Your task to perform on an android device: What's on my calendar tomorrow? Image 0: 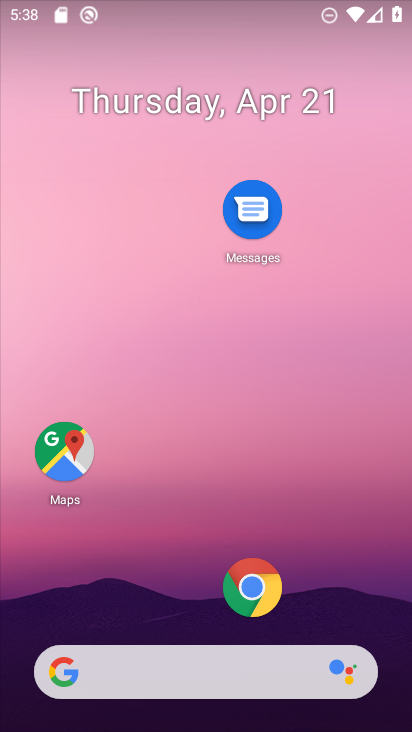
Step 0: drag from (195, 612) to (218, 74)
Your task to perform on an android device: What's on my calendar tomorrow? Image 1: 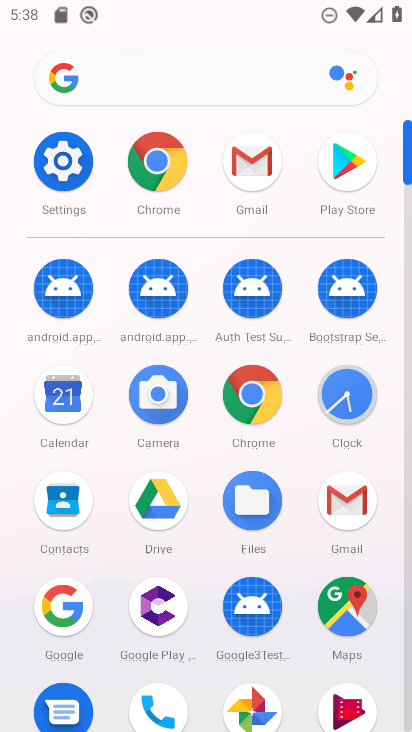
Step 1: click (63, 395)
Your task to perform on an android device: What's on my calendar tomorrow? Image 2: 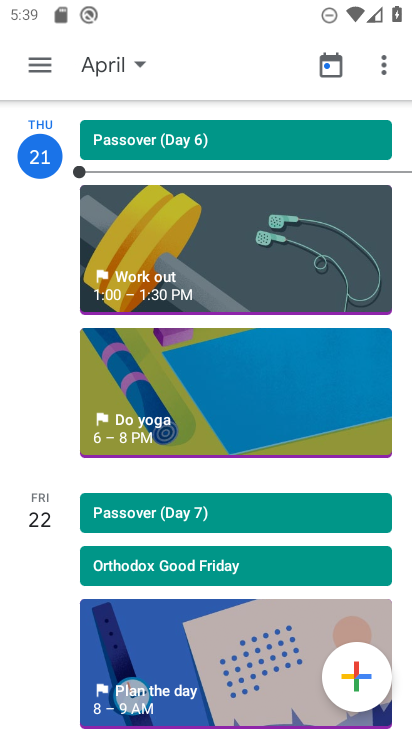
Step 2: click (40, 540)
Your task to perform on an android device: What's on my calendar tomorrow? Image 3: 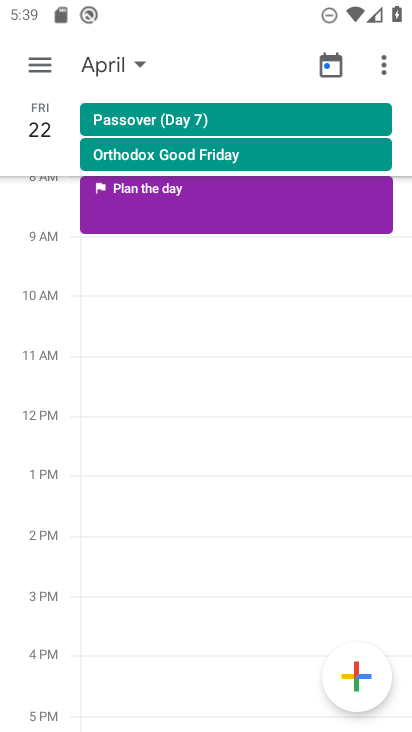
Step 3: task complete